Your task to perform on an android device: change timer sound Image 0: 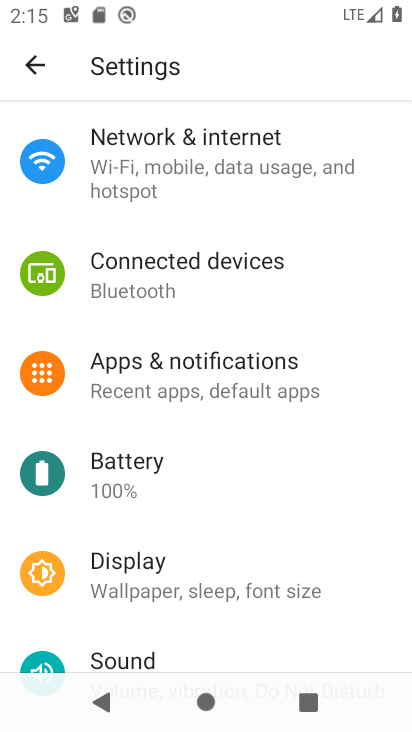
Step 0: press home button
Your task to perform on an android device: change timer sound Image 1: 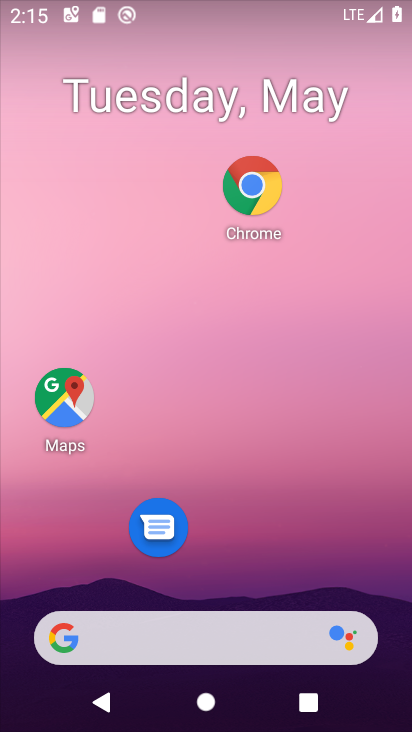
Step 1: drag from (293, 509) to (168, 57)
Your task to perform on an android device: change timer sound Image 2: 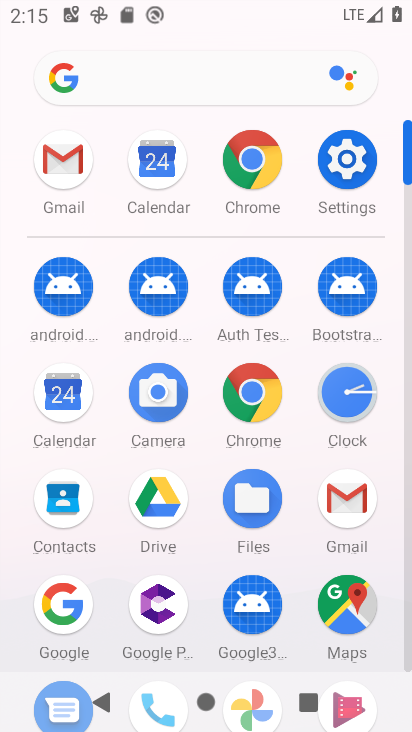
Step 2: click (351, 394)
Your task to perform on an android device: change timer sound Image 3: 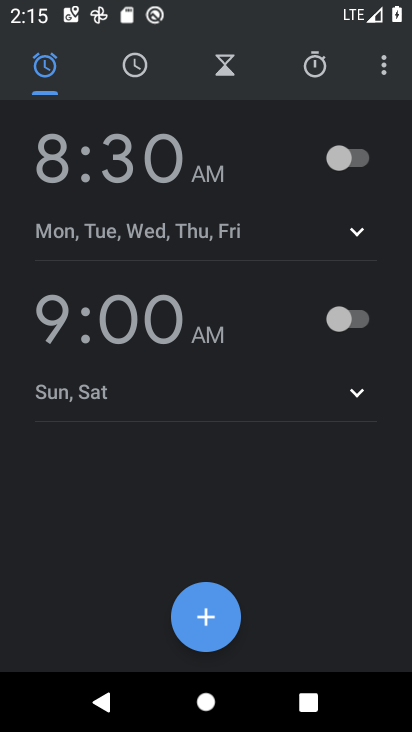
Step 3: click (220, 61)
Your task to perform on an android device: change timer sound Image 4: 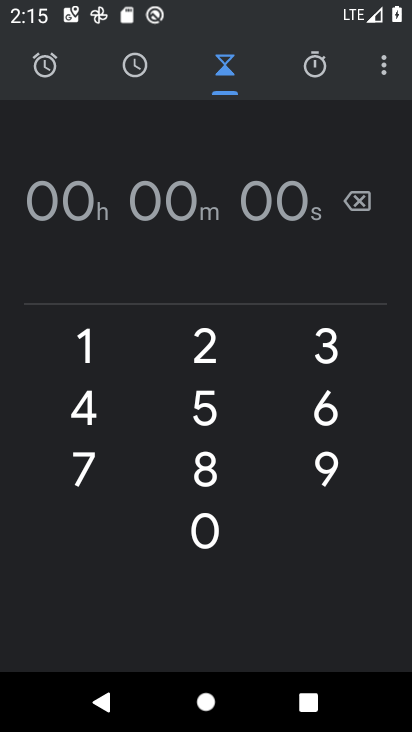
Step 4: click (83, 341)
Your task to perform on an android device: change timer sound Image 5: 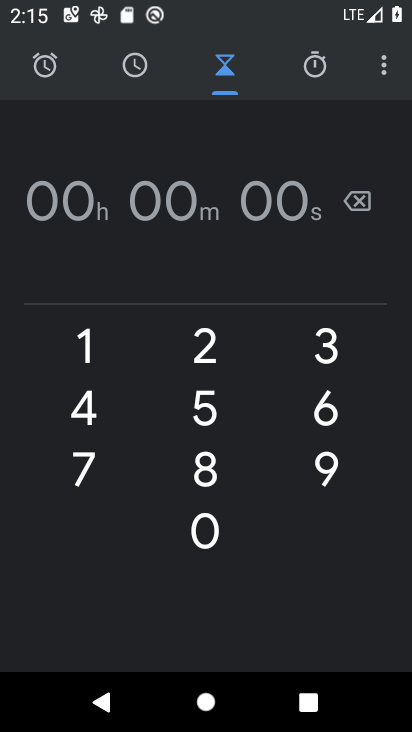
Step 5: click (83, 341)
Your task to perform on an android device: change timer sound Image 6: 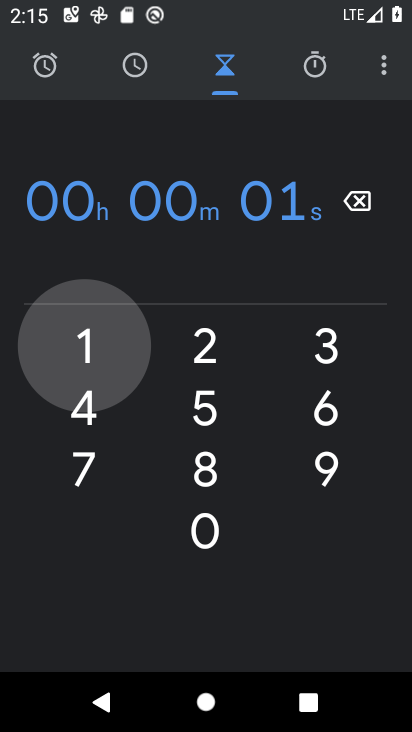
Step 6: click (83, 341)
Your task to perform on an android device: change timer sound Image 7: 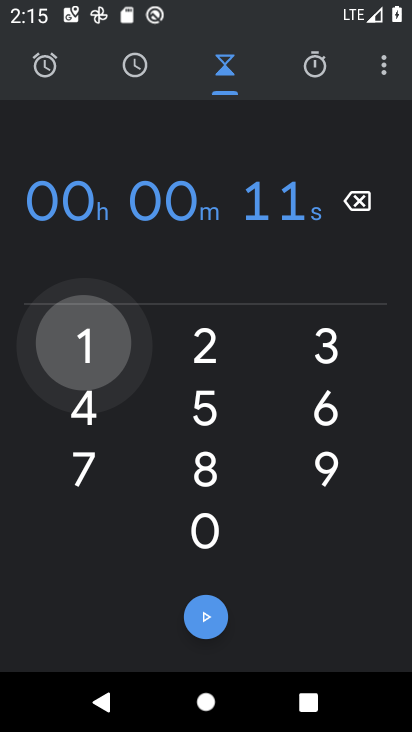
Step 7: click (83, 341)
Your task to perform on an android device: change timer sound Image 8: 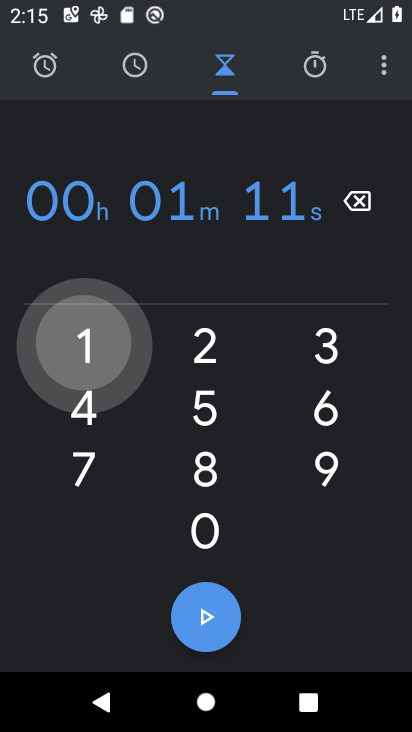
Step 8: click (83, 341)
Your task to perform on an android device: change timer sound Image 9: 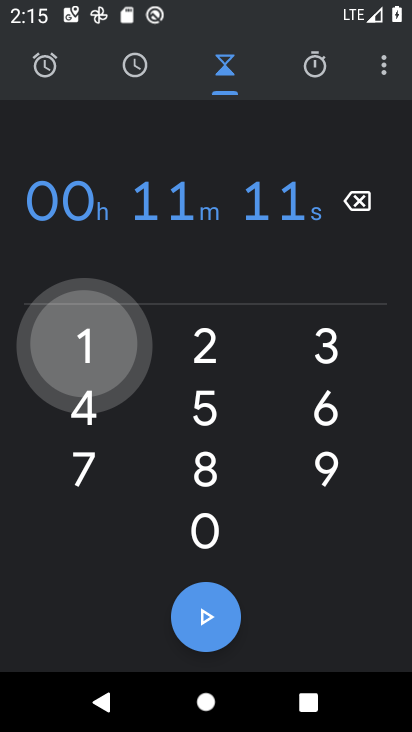
Step 9: click (83, 341)
Your task to perform on an android device: change timer sound Image 10: 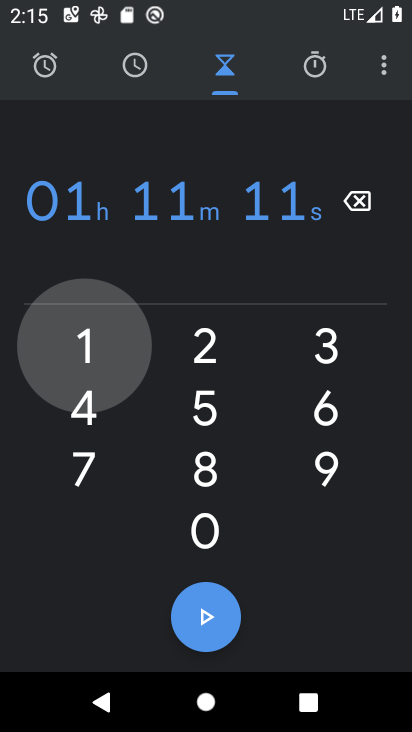
Step 10: click (83, 341)
Your task to perform on an android device: change timer sound Image 11: 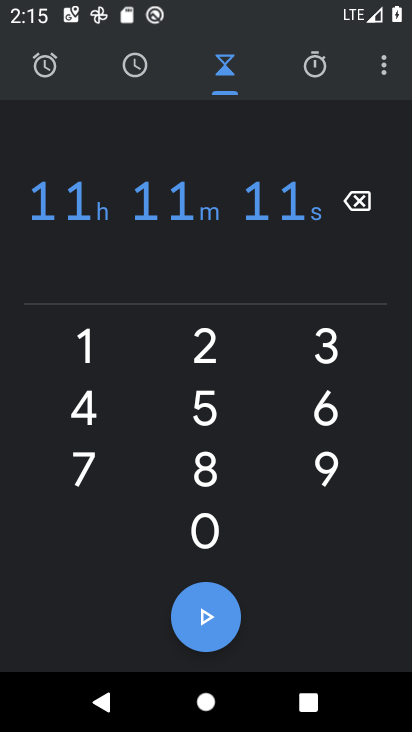
Step 11: task complete